Your task to perform on an android device: Open battery settings Image 0: 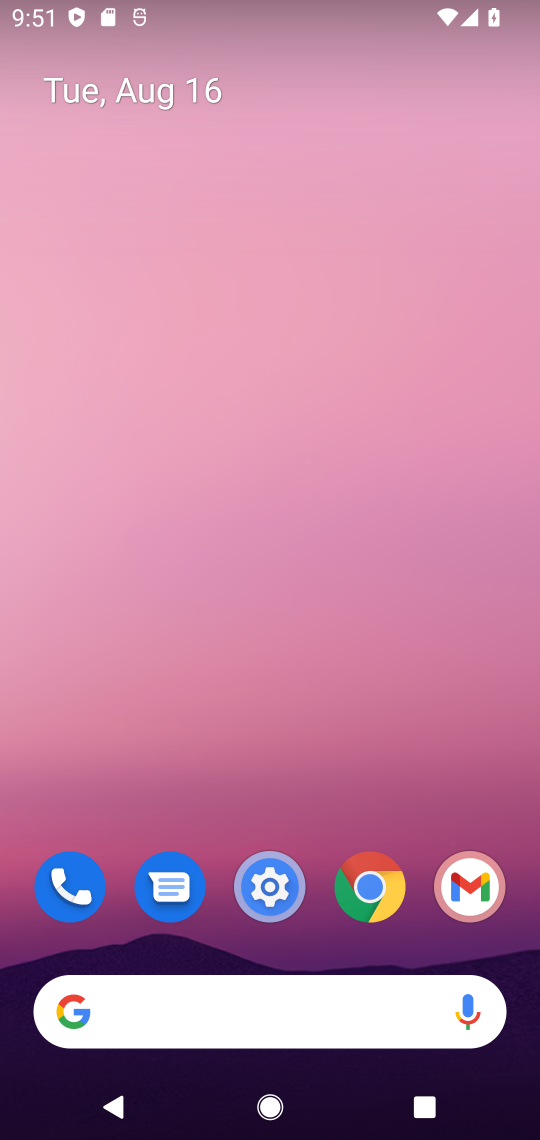
Step 0: press home button
Your task to perform on an android device: Open battery settings Image 1: 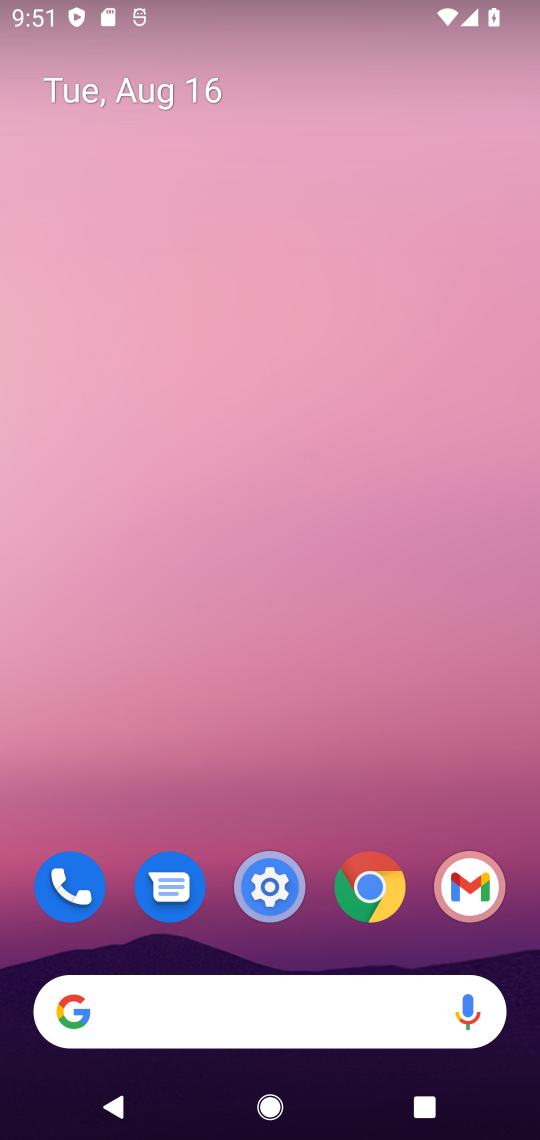
Step 1: drag from (411, 839) to (432, 259)
Your task to perform on an android device: Open battery settings Image 2: 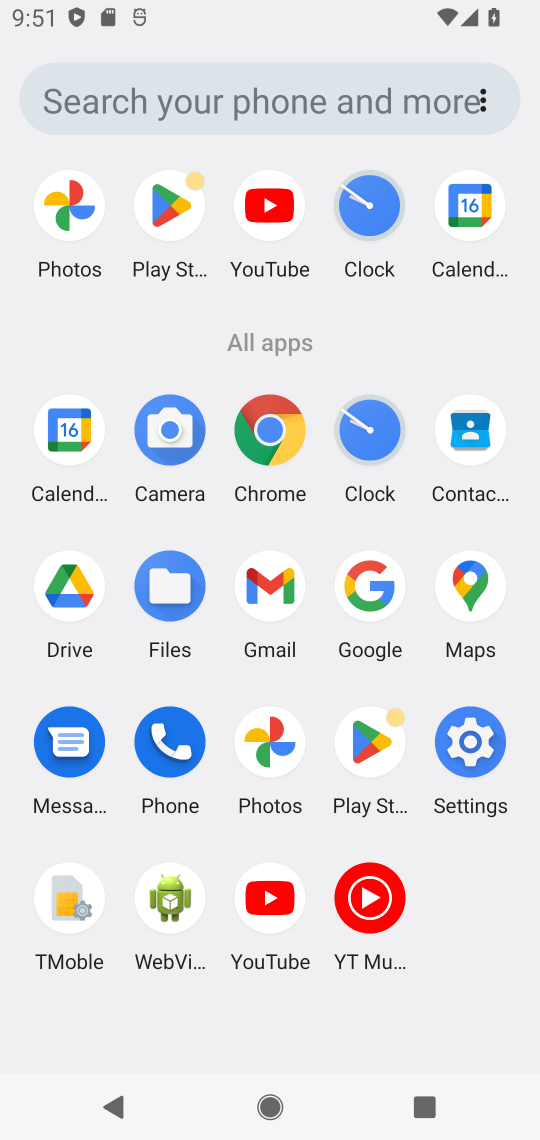
Step 2: click (466, 751)
Your task to perform on an android device: Open battery settings Image 3: 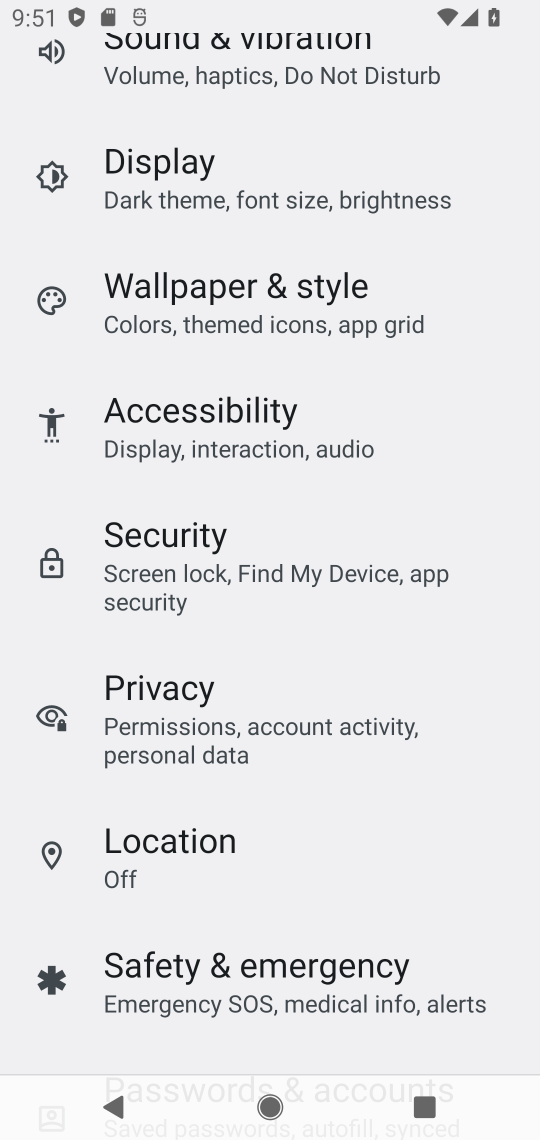
Step 3: drag from (476, 377) to (494, 659)
Your task to perform on an android device: Open battery settings Image 4: 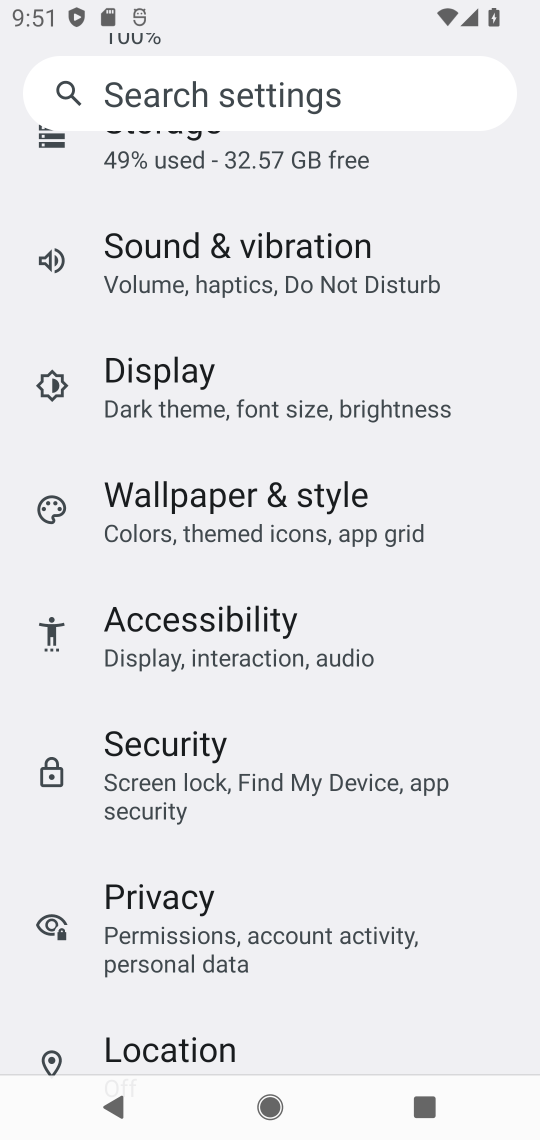
Step 4: drag from (486, 393) to (495, 630)
Your task to perform on an android device: Open battery settings Image 5: 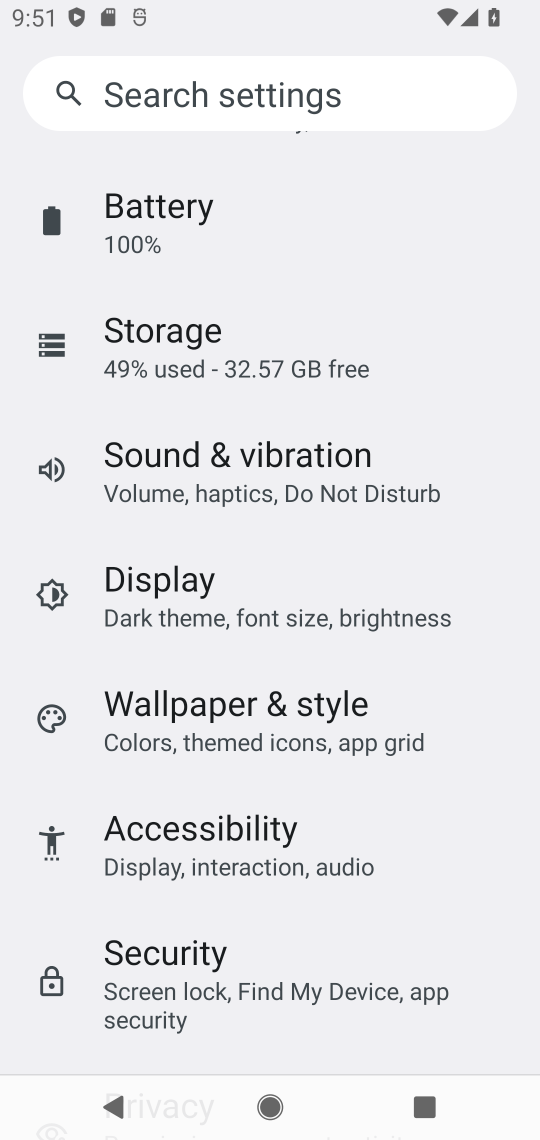
Step 5: drag from (479, 332) to (483, 542)
Your task to perform on an android device: Open battery settings Image 6: 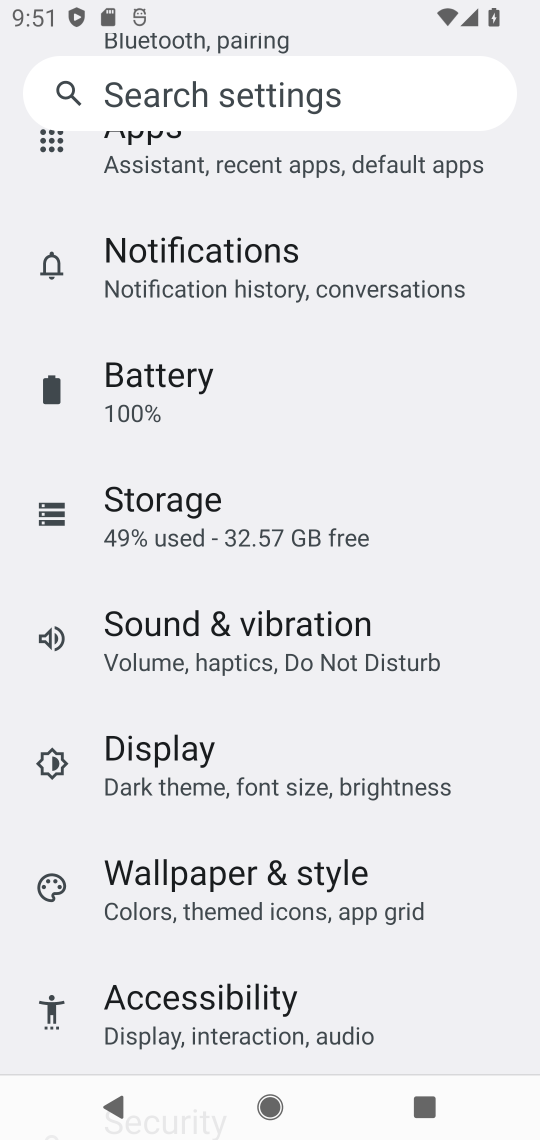
Step 6: drag from (495, 375) to (485, 646)
Your task to perform on an android device: Open battery settings Image 7: 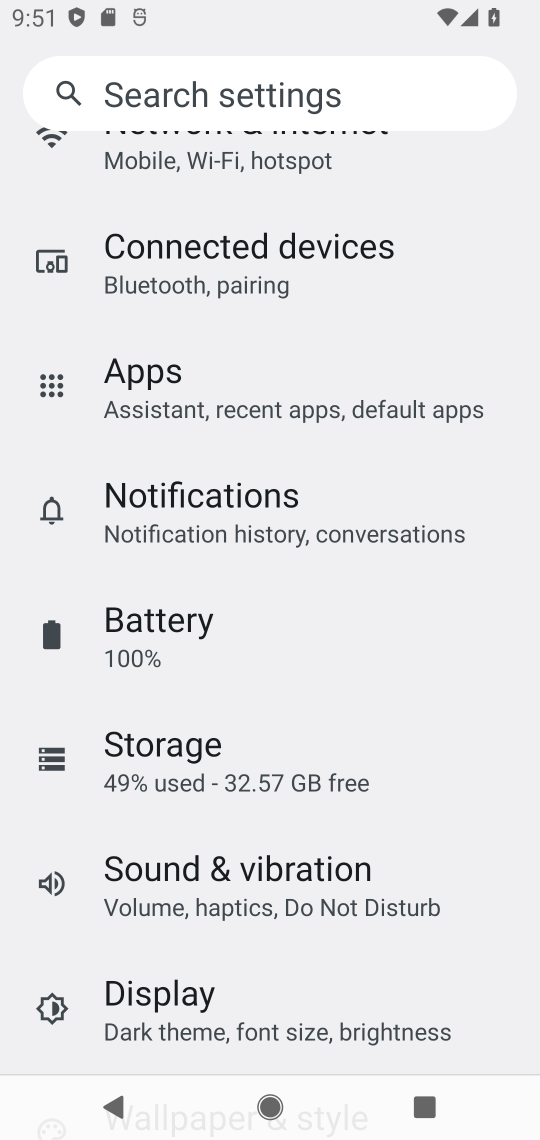
Step 7: drag from (497, 246) to (497, 606)
Your task to perform on an android device: Open battery settings Image 8: 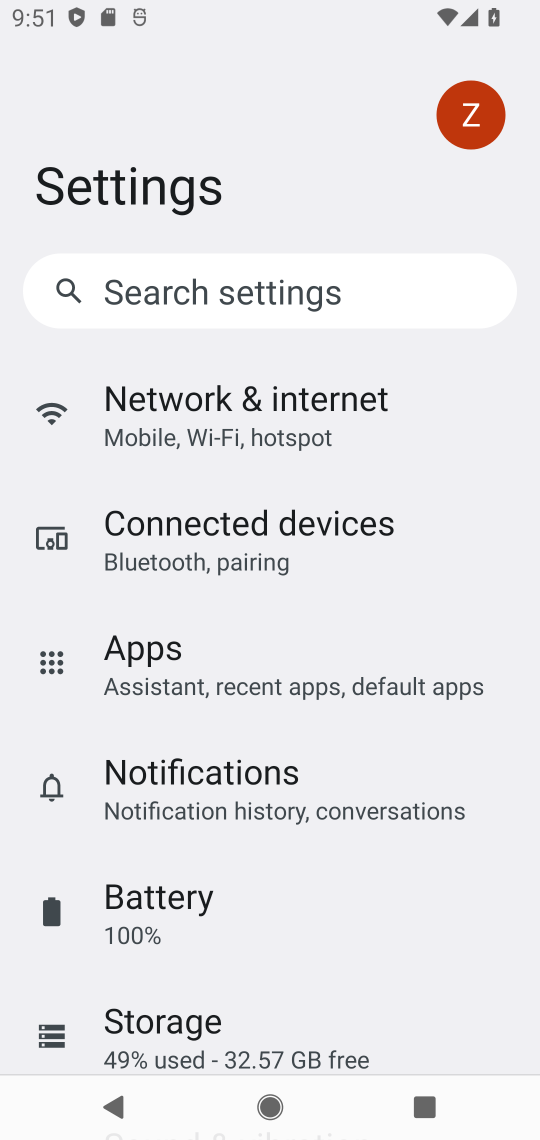
Step 8: click (197, 911)
Your task to perform on an android device: Open battery settings Image 9: 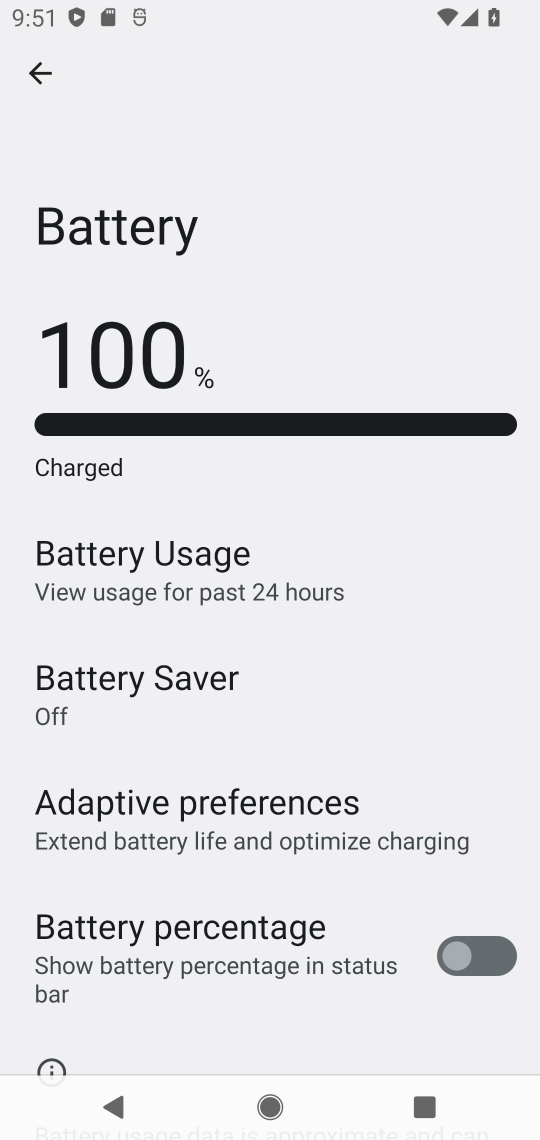
Step 9: task complete